Your task to perform on an android device: open chrome privacy settings Image 0: 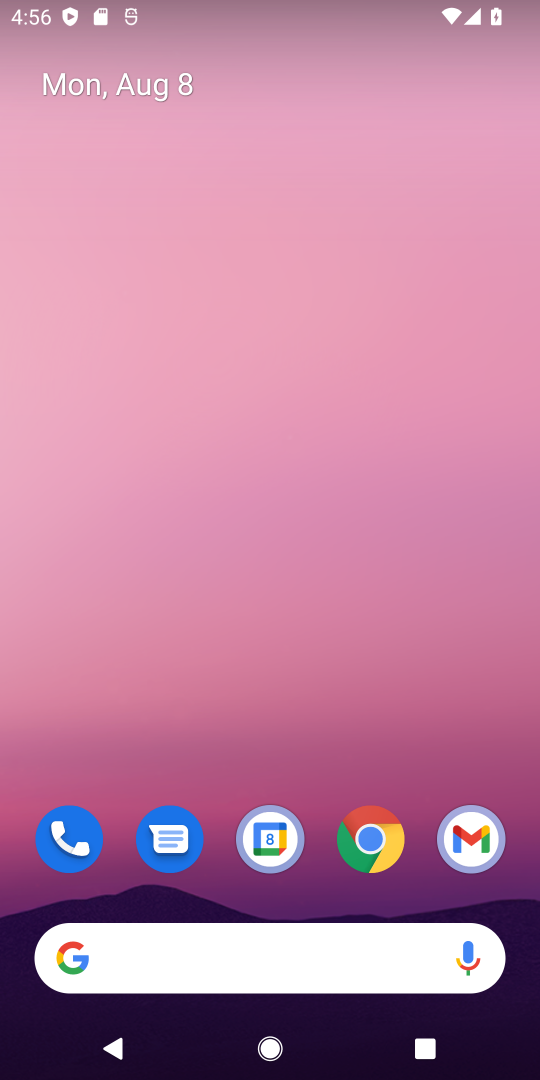
Step 0: click (385, 845)
Your task to perform on an android device: open chrome privacy settings Image 1: 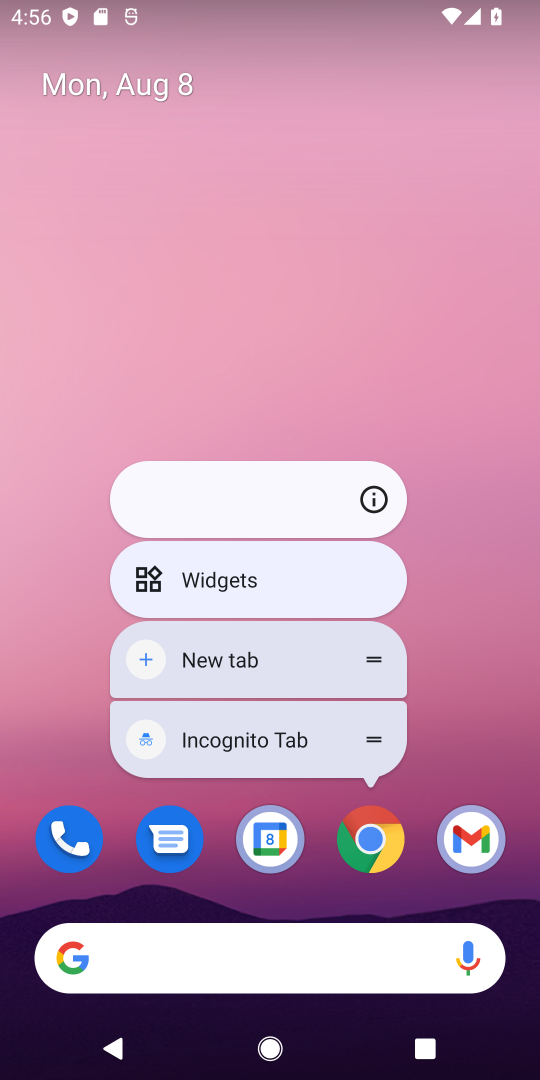
Step 1: click (385, 845)
Your task to perform on an android device: open chrome privacy settings Image 2: 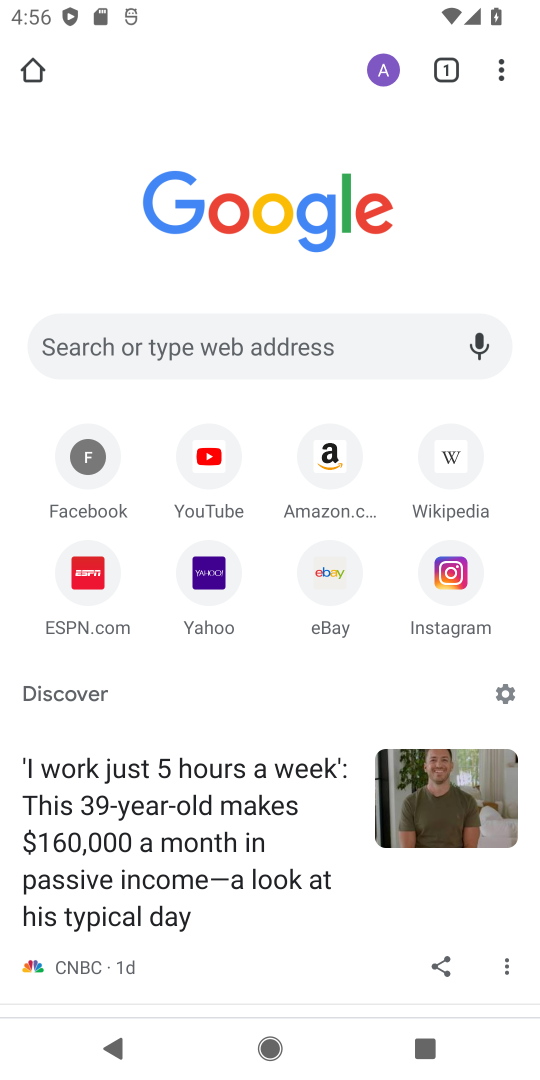
Step 2: click (509, 66)
Your task to perform on an android device: open chrome privacy settings Image 3: 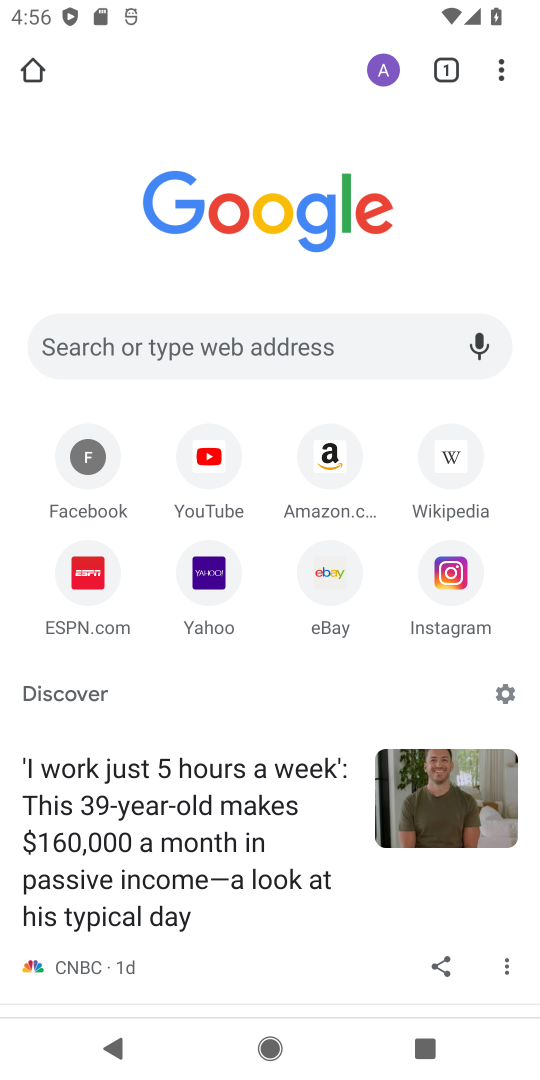
Step 3: click (501, 75)
Your task to perform on an android device: open chrome privacy settings Image 4: 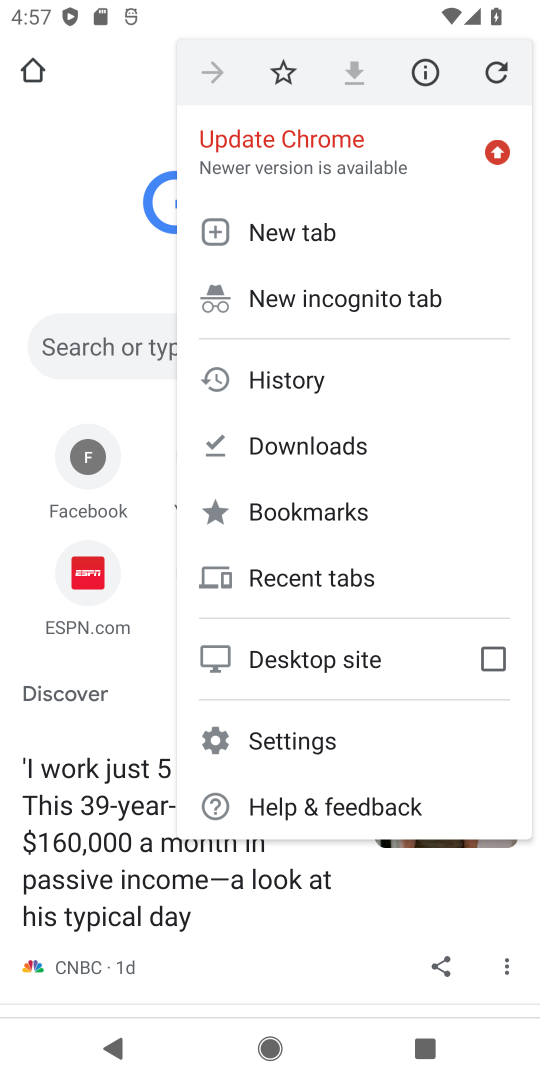
Step 4: click (290, 748)
Your task to perform on an android device: open chrome privacy settings Image 5: 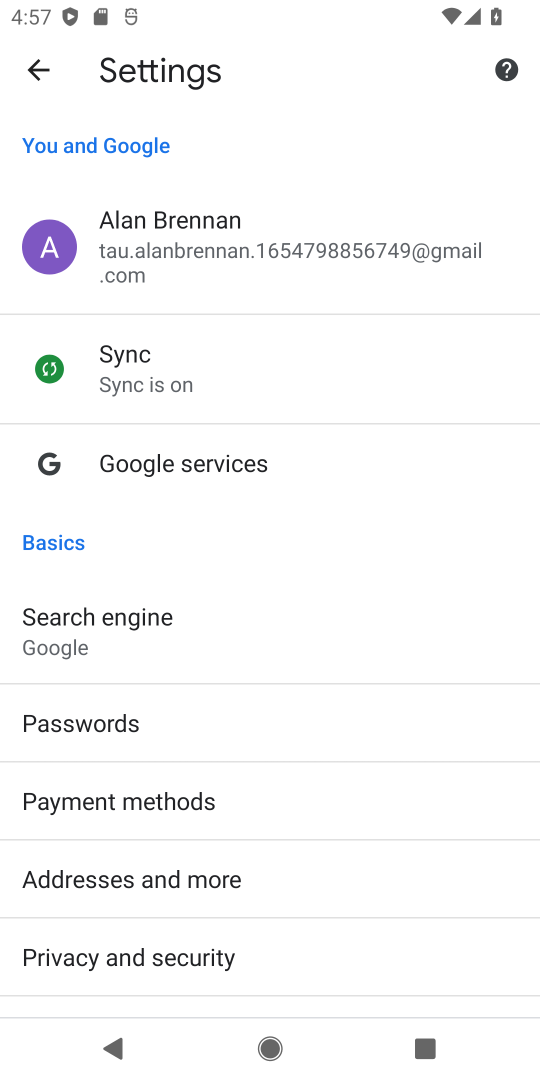
Step 5: drag from (180, 824) to (222, 392)
Your task to perform on an android device: open chrome privacy settings Image 6: 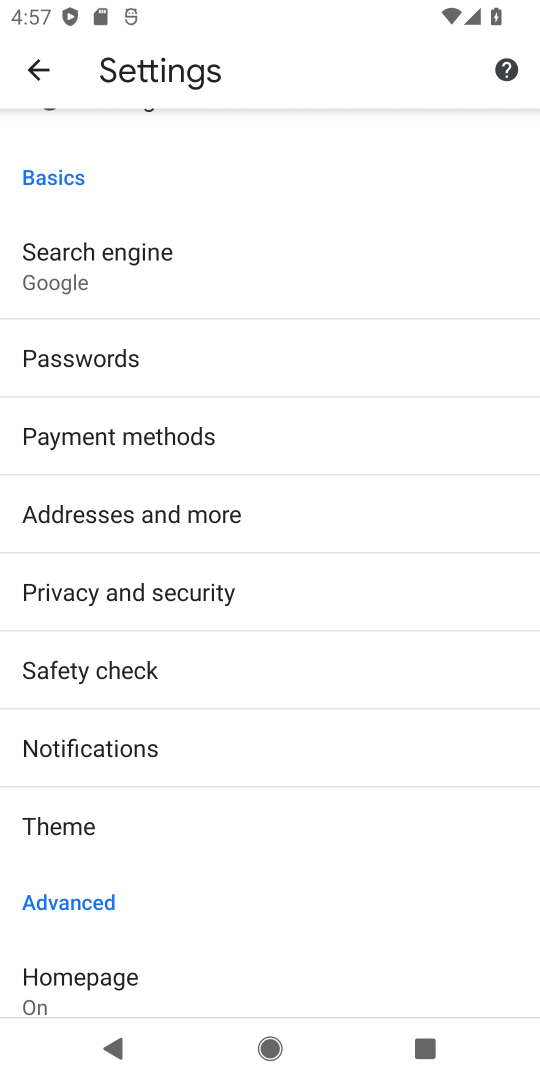
Step 6: drag from (146, 776) to (159, 288)
Your task to perform on an android device: open chrome privacy settings Image 7: 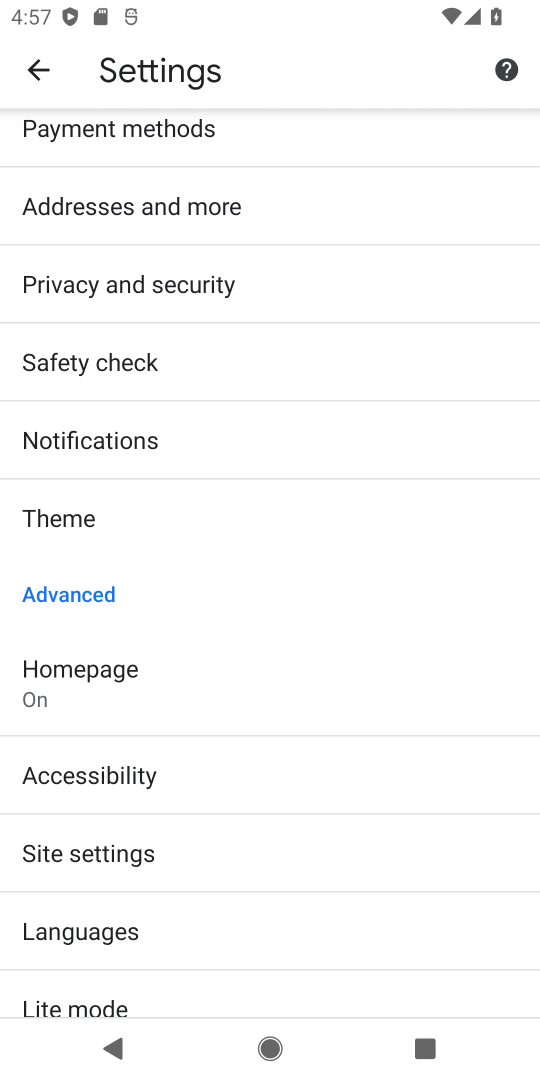
Step 7: drag from (168, 762) to (212, 268)
Your task to perform on an android device: open chrome privacy settings Image 8: 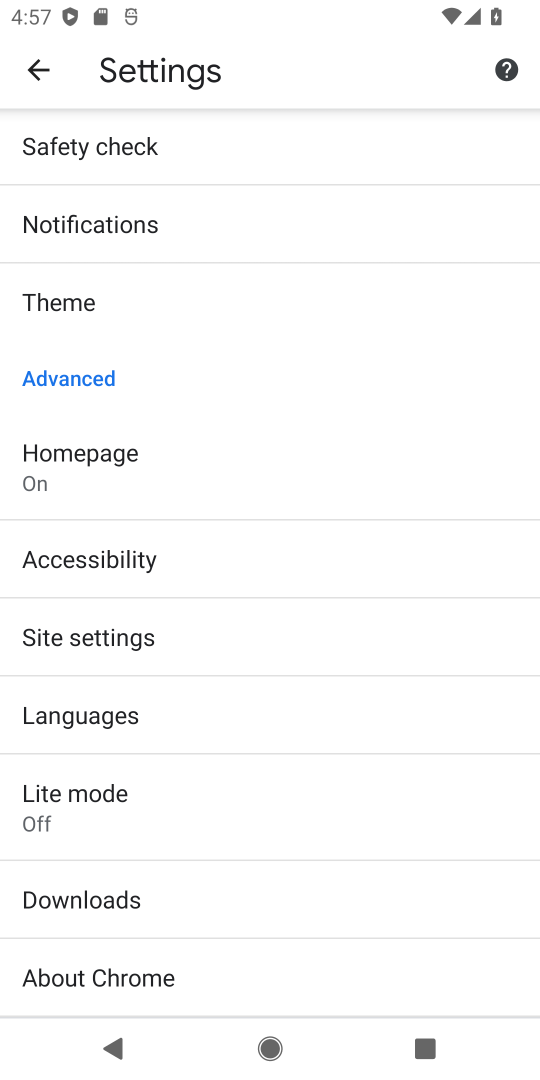
Step 8: drag from (171, 308) to (142, 1044)
Your task to perform on an android device: open chrome privacy settings Image 9: 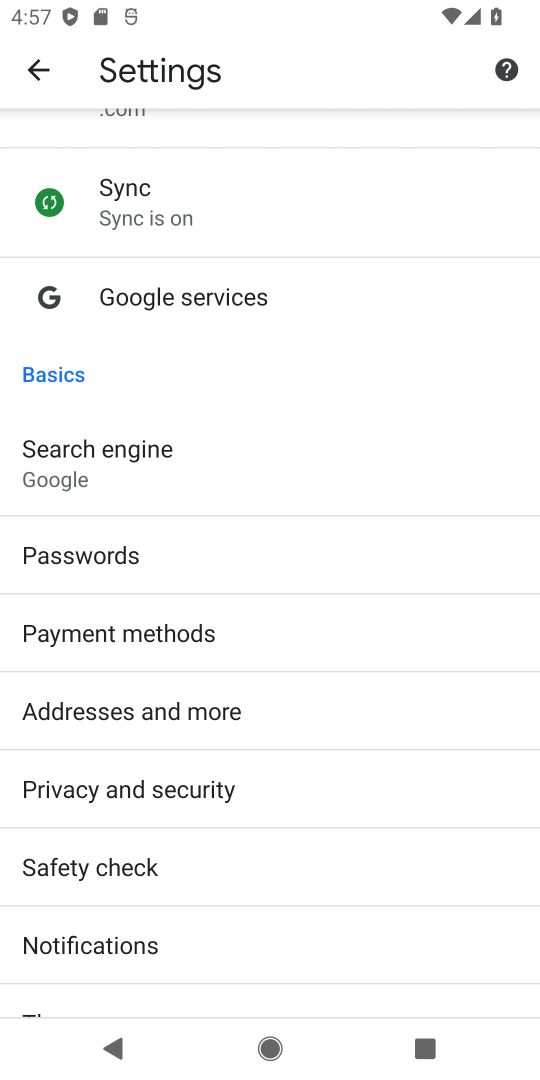
Step 9: click (175, 802)
Your task to perform on an android device: open chrome privacy settings Image 10: 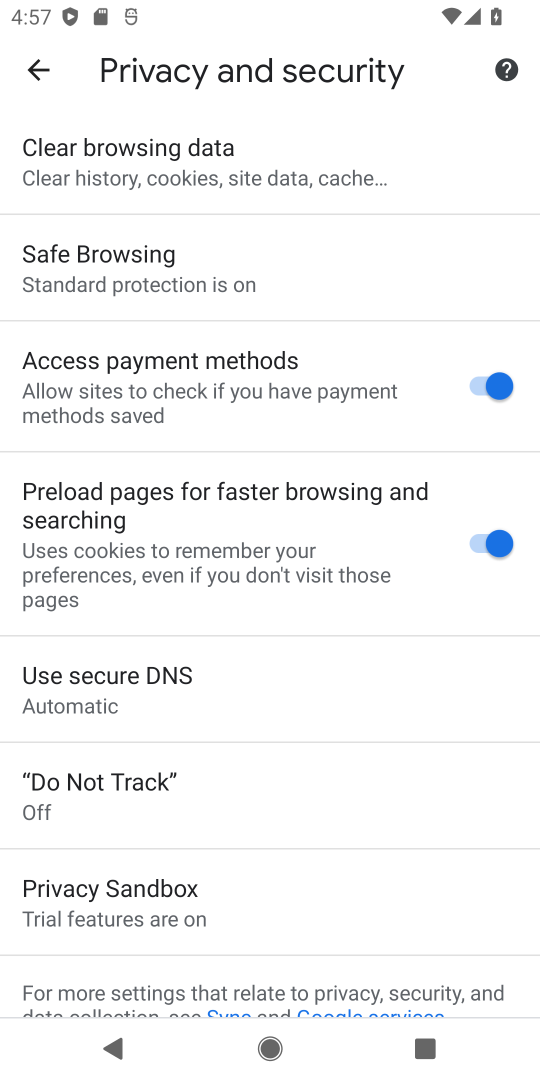
Step 10: task complete